Your task to perform on an android device: turn on priority inbox in the gmail app Image 0: 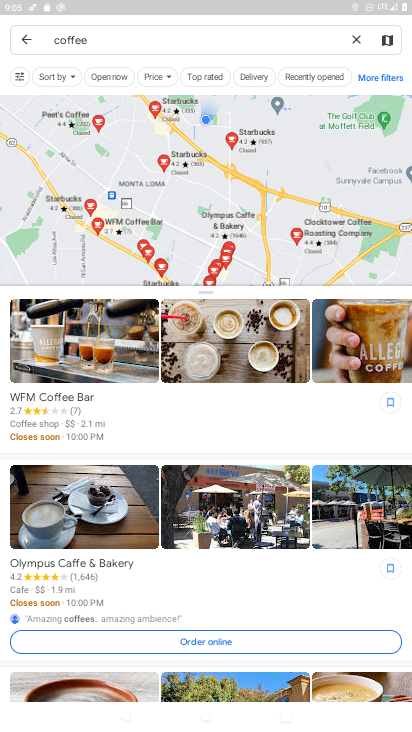
Step 0: press home button
Your task to perform on an android device: turn on priority inbox in the gmail app Image 1: 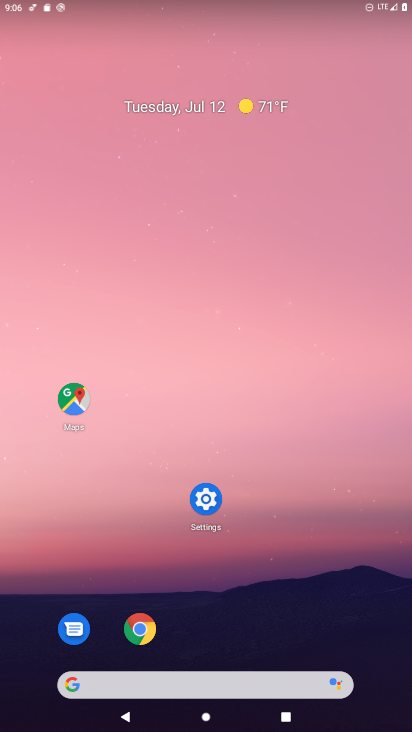
Step 1: drag from (390, 715) to (285, 234)
Your task to perform on an android device: turn on priority inbox in the gmail app Image 2: 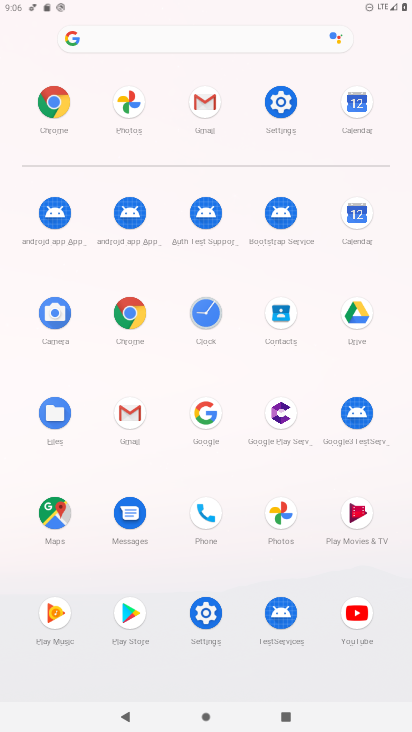
Step 2: click (134, 420)
Your task to perform on an android device: turn on priority inbox in the gmail app Image 3: 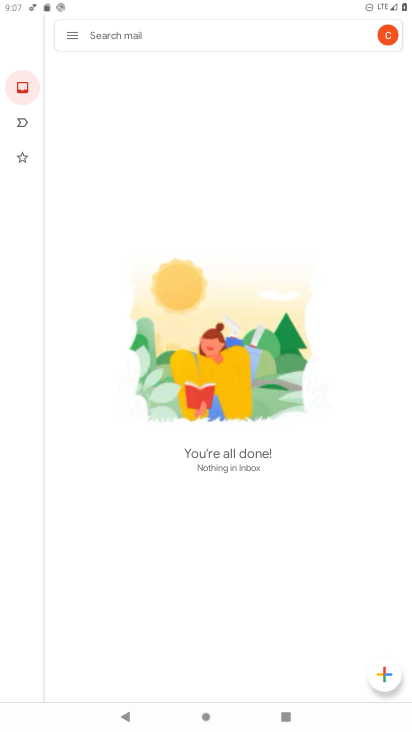
Step 3: click (70, 30)
Your task to perform on an android device: turn on priority inbox in the gmail app Image 4: 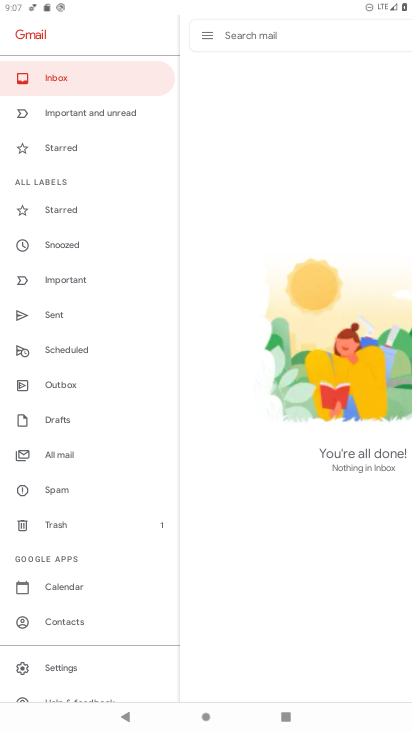
Step 4: click (54, 661)
Your task to perform on an android device: turn on priority inbox in the gmail app Image 5: 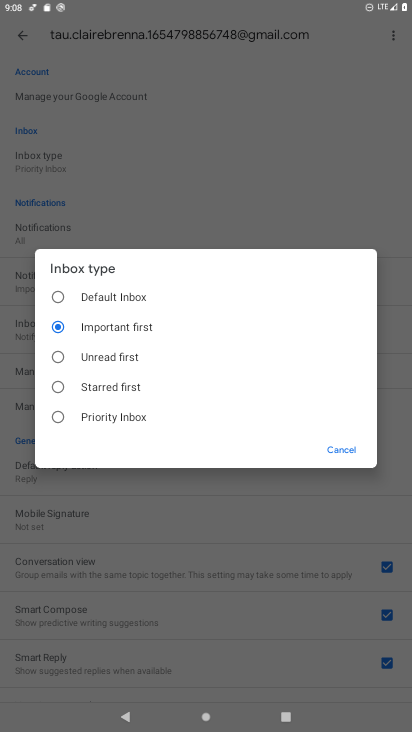
Step 5: click (85, 413)
Your task to perform on an android device: turn on priority inbox in the gmail app Image 6: 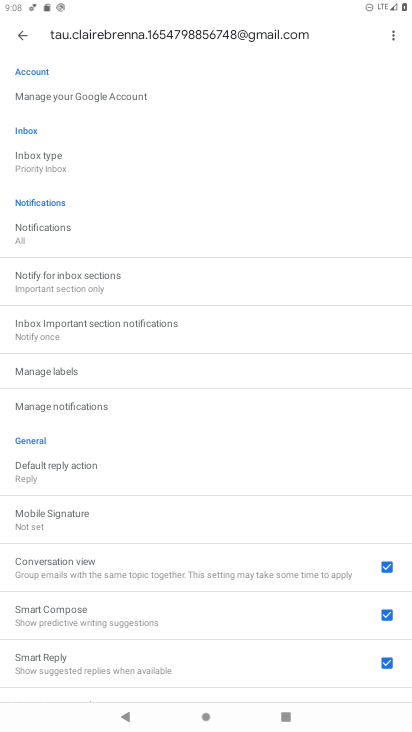
Step 6: task complete